Your task to perform on an android device: Open Google Chrome Image 0: 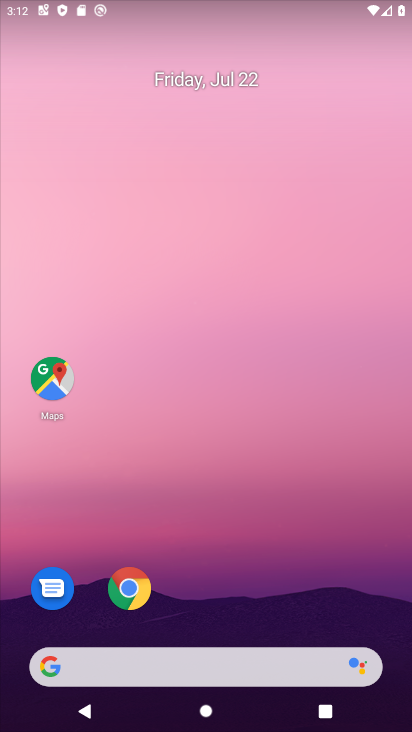
Step 0: click (129, 594)
Your task to perform on an android device: Open Google Chrome Image 1: 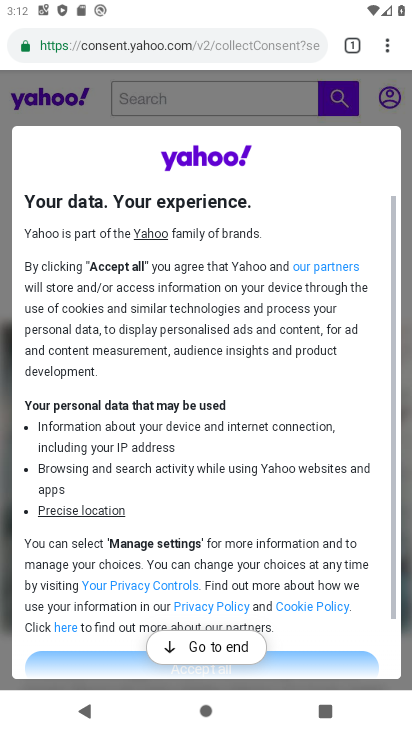
Step 1: task complete